Your task to perform on an android device: Open CNN.com Image 0: 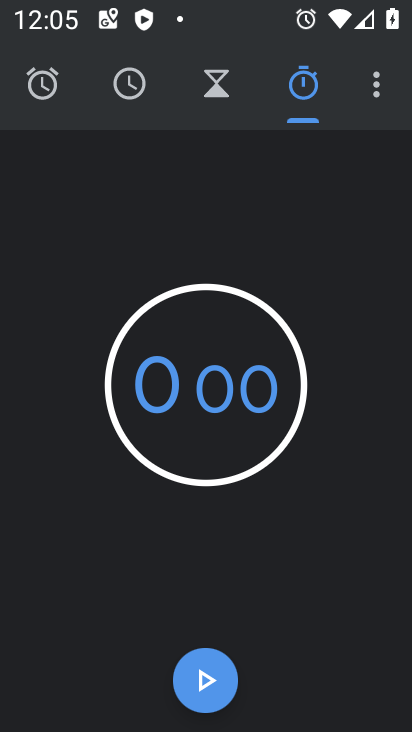
Step 0: press home button
Your task to perform on an android device: Open CNN.com Image 1: 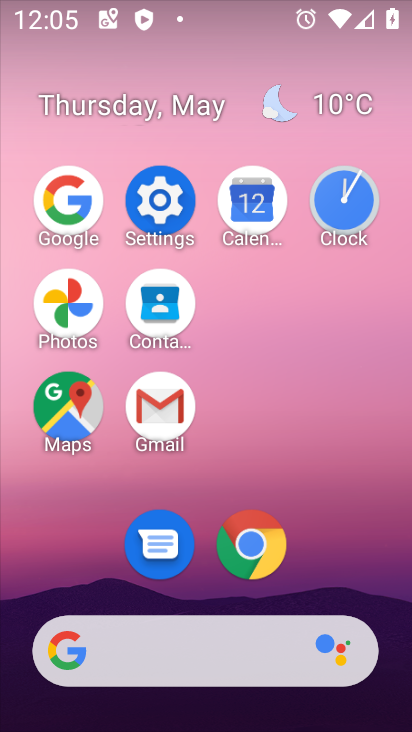
Step 1: click (254, 529)
Your task to perform on an android device: Open CNN.com Image 2: 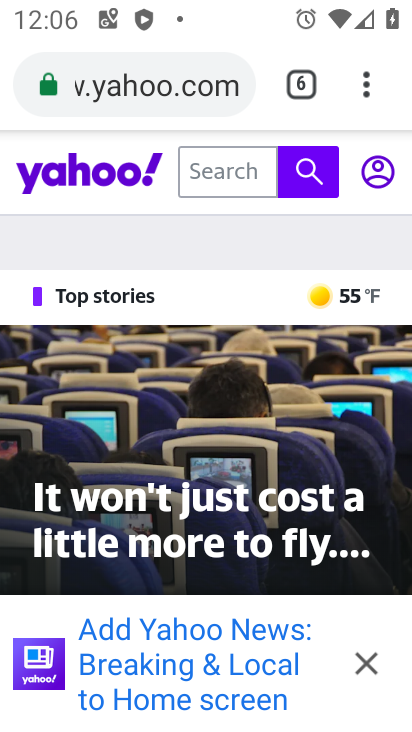
Step 2: click (299, 73)
Your task to perform on an android device: Open CNN.com Image 3: 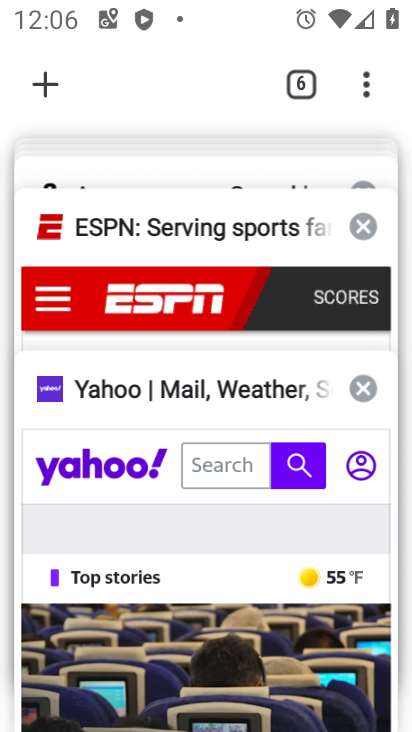
Step 3: drag from (232, 231) to (204, 541)
Your task to perform on an android device: Open CNN.com Image 4: 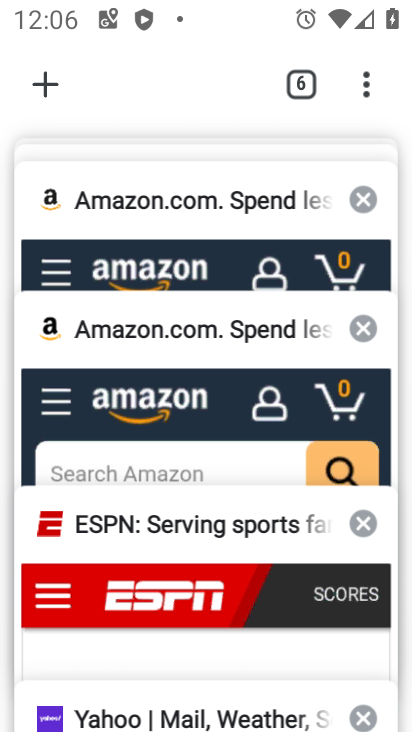
Step 4: drag from (192, 205) to (199, 493)
Your task to perform on an android device: Open CNN.com Image 5: 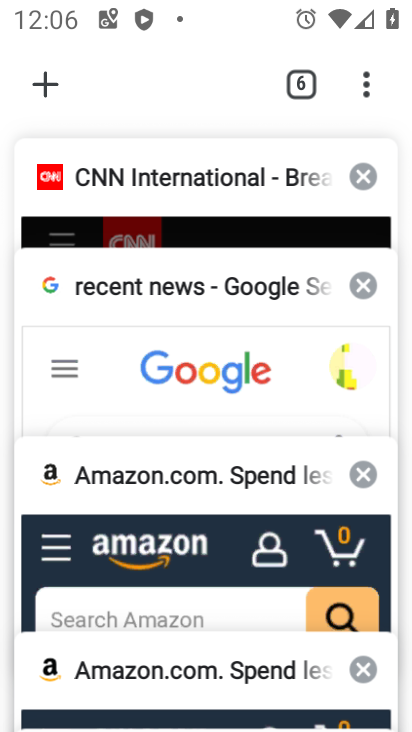
Step 5: click (201, 180)
Your task to perform on an android device: Open CNN.com Image 6: 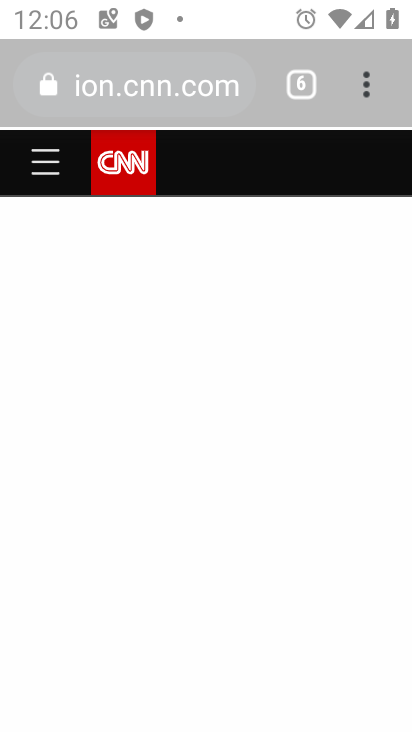
Step 6: task complete